Your task to perform on an android device: turn on javascript in the chrome app Image 0: 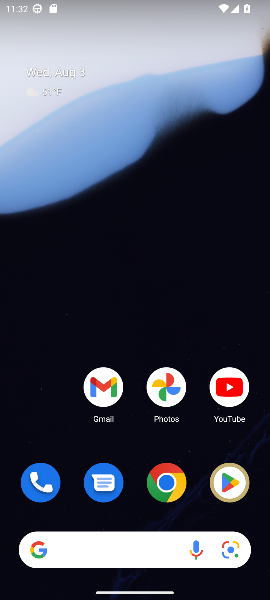
Step 0: click (168, 487)
Your task to perform on an android device: turn on javascript in the chrome app Image 1: 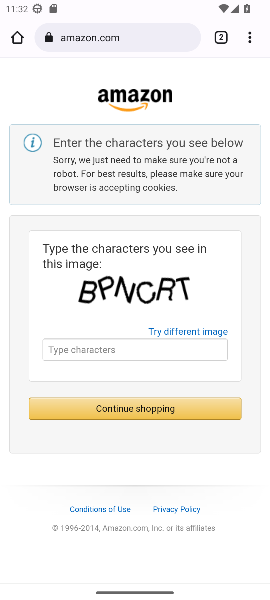
Step 1: click (261, 33)
Your task to perform on an android device: turn on javascript in the chrome app Image 2: 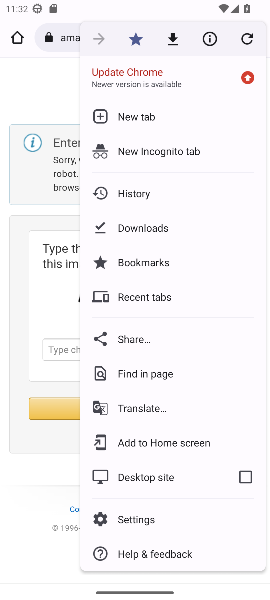
Step 2: click (161, 511)
Your task to perform on an android device: turn on javascript in the chrome app Image 3: 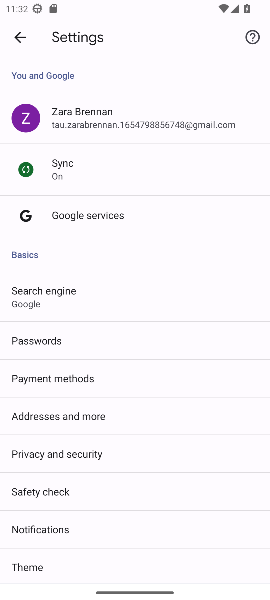
Step 3: drag from (79, 558) to (96, 222)
Your task to perform on an android device: turn on javascript in the chrome app Image 4: 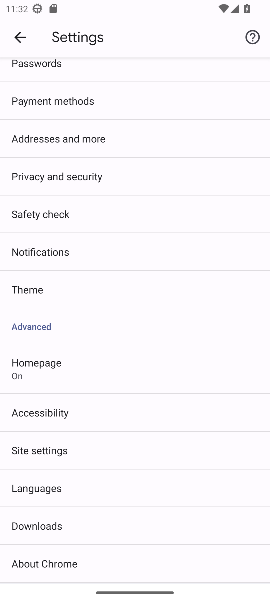
Step 4: click (121, 458)
Your task to perform on an android device: turn on javascript in the chrome app Image 5: 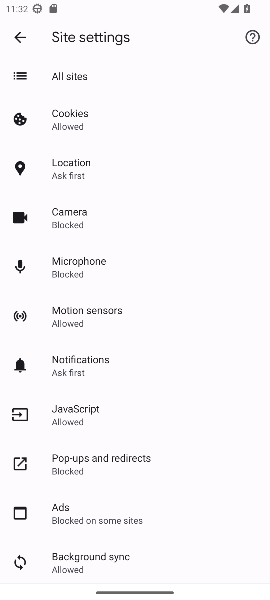
Step 5: click (139, 426)
Your task to perform on an android device: turn on javascript in the chrome app Image 6: 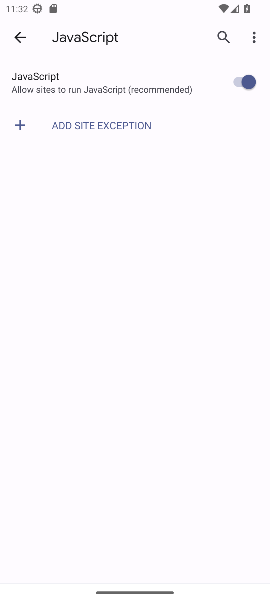
Step 6: task complete